Your task to perform on an android device: set default search engine in the chrome app Image 0: 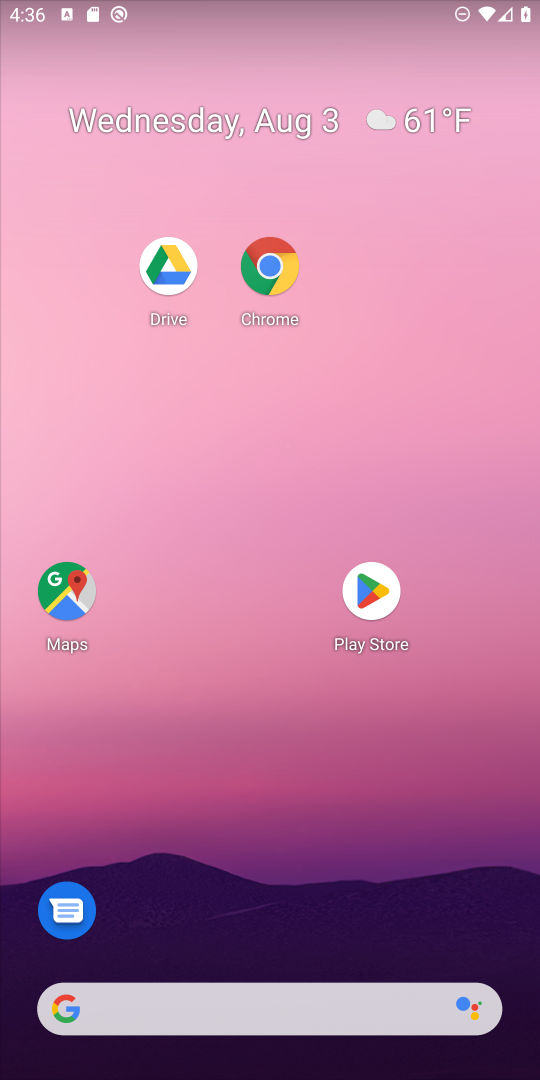
Step 0: drag from (330, 861) to (420, 134)
Your task to perform on an android device: set default search engine in the chrome app Image 1: 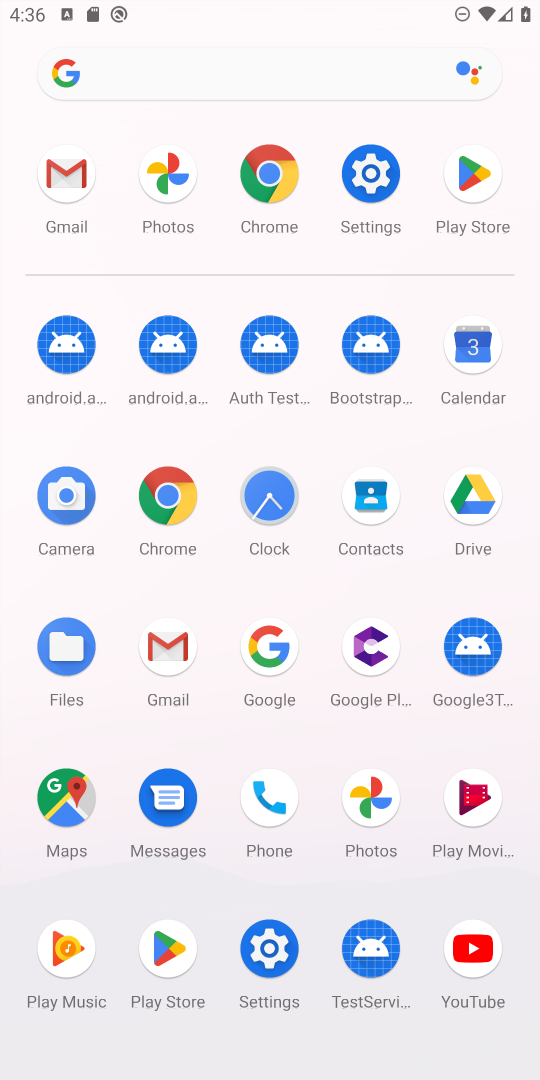
Step 1: click (165, 488)
Your task to perform on an android device: set default search engine in the chrome app Image 2: 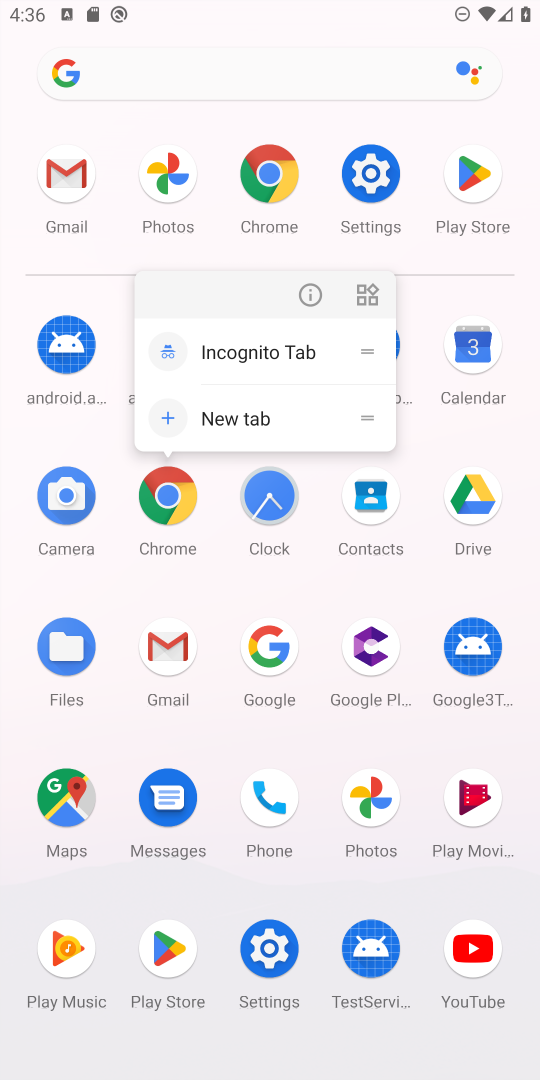
Step 2: click (177, 506)
Your task to perform on an android device: set default search engine in the chrome app Image 3: 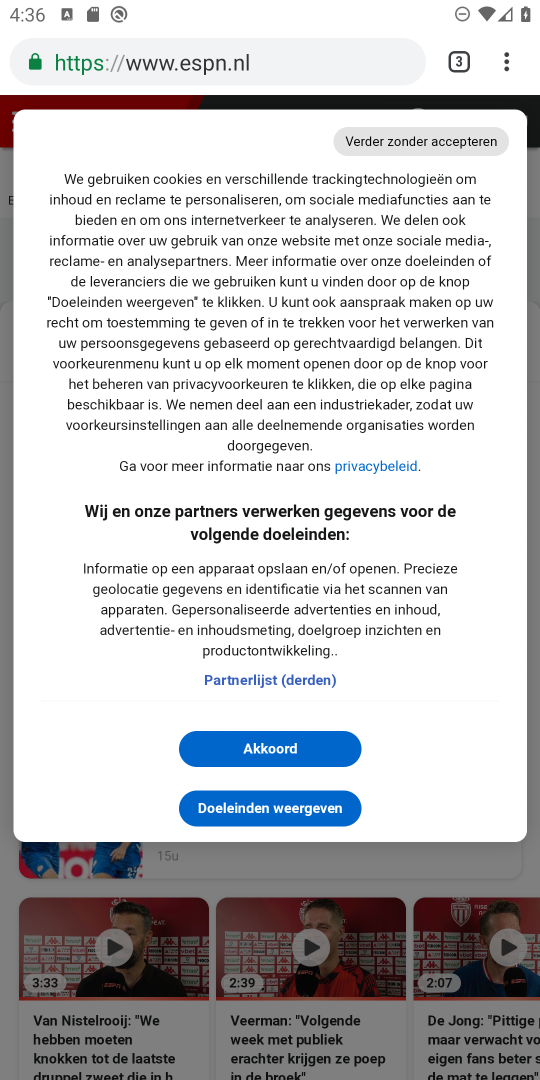
Step 3: drag from (507, 53) to (326, 740)
Your task to perform on an android device: set default search engine in the chrome app Image 4: 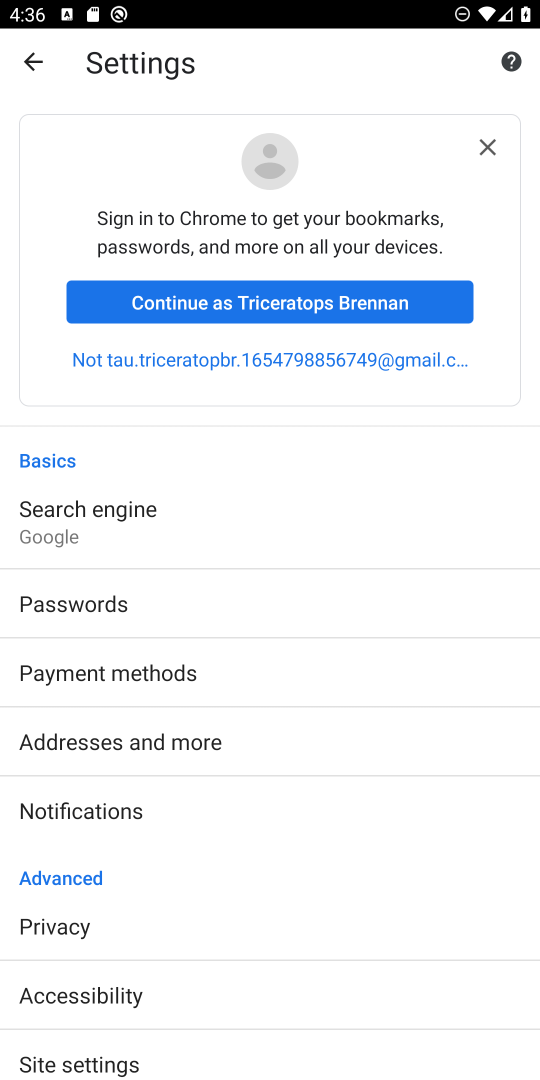
Step 4: drag from (152, 1010) to (245, 389)
Your task to perform on an android device: set default search engine in the chrome app Image 5: 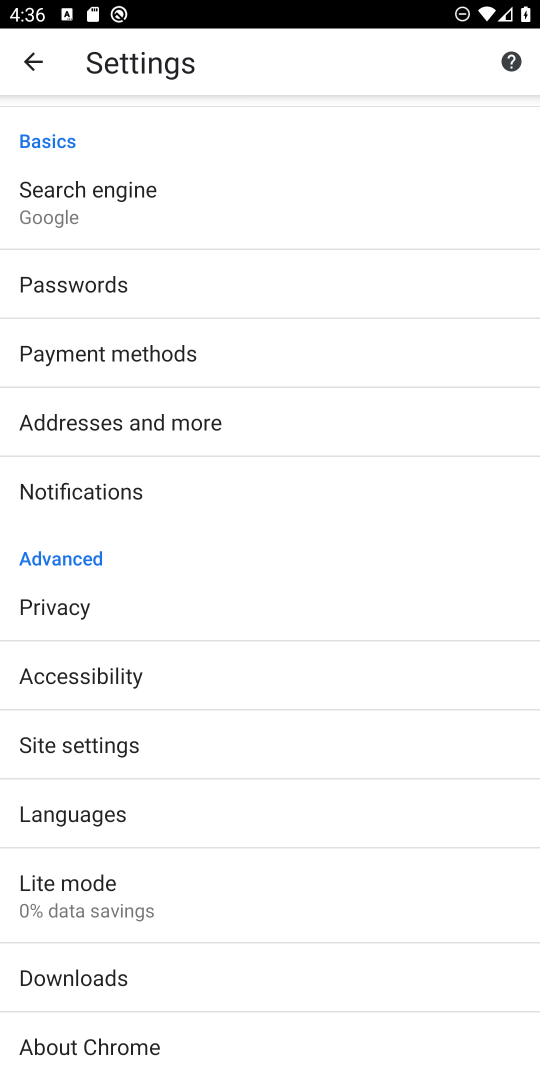
Step 5: click (155, 757)
Your task to perform on an android device: set default search engine in the chrome app Image 6: 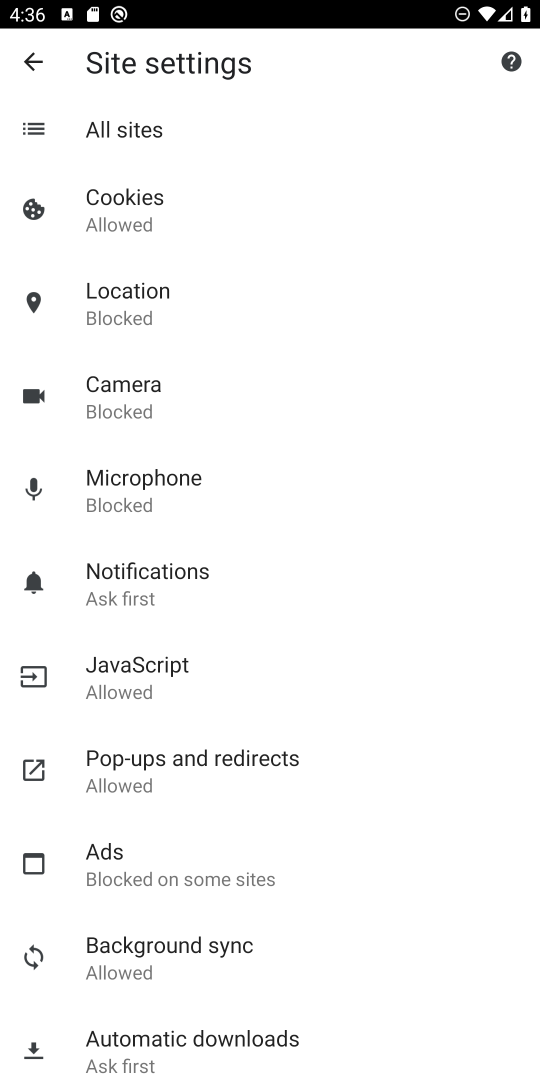
Step 6: press back button
Your task to perform on an android device: set default search engine in the chrome app Image 7: 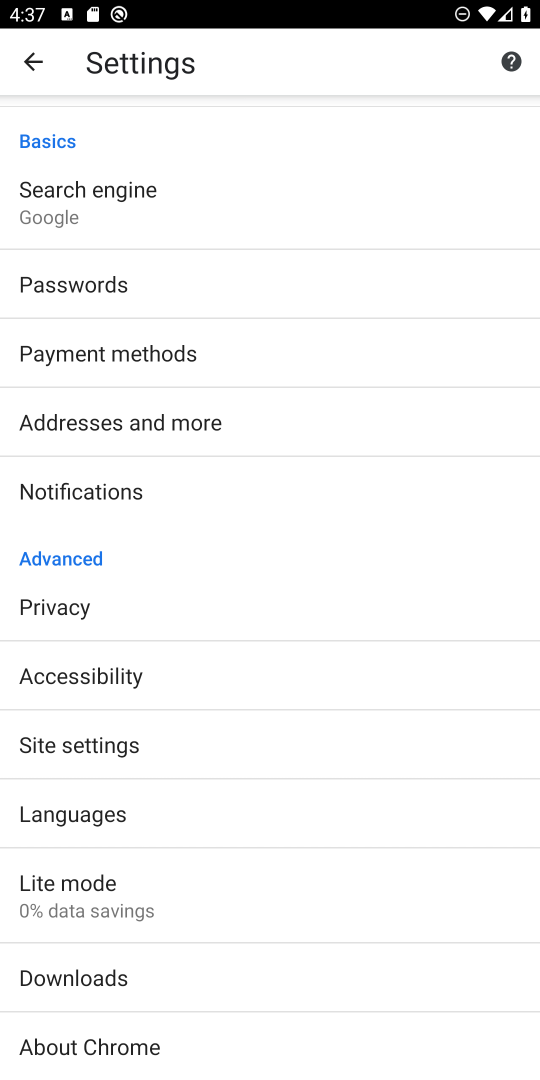
Step 7: click (121, 200)
Your task to perform on an android device: set default search engine in the chrome app Image 8: 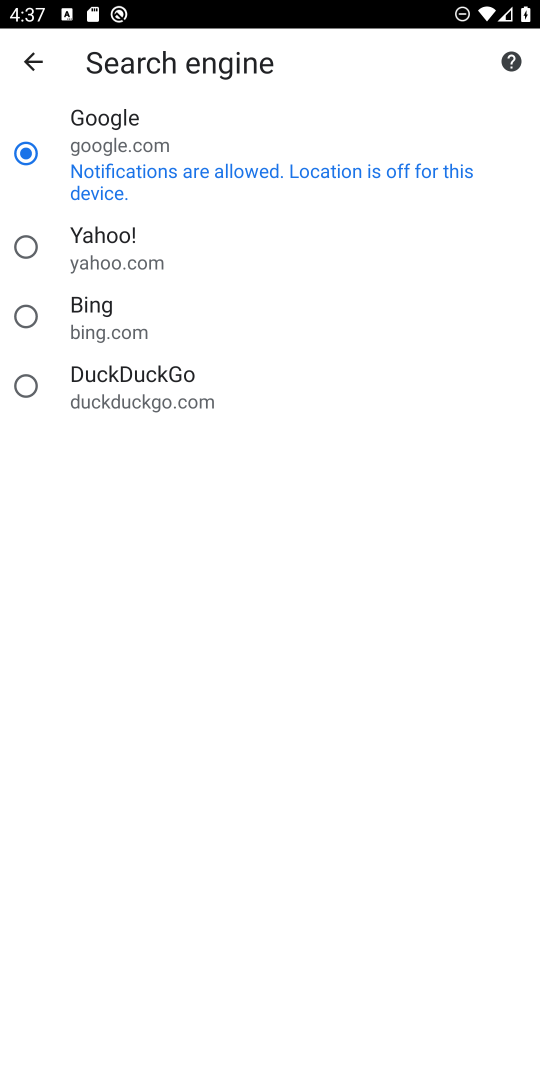
Step 8: task complete